Your task to perform on an android device: add a contact in the contacts app Image 0: 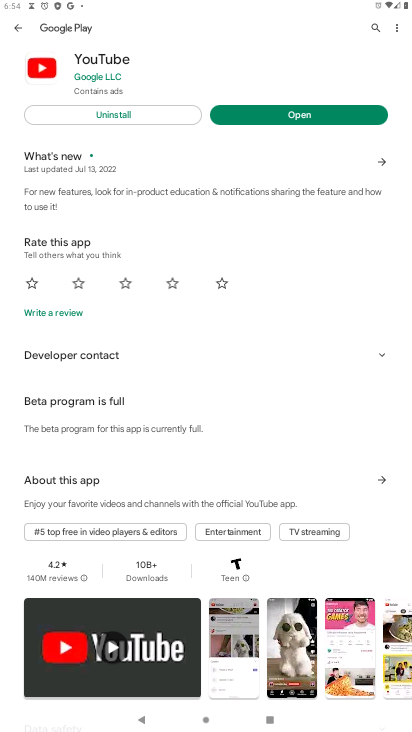
Step 0: press home button
Your task to perform on an android device: add a contact in the contacts app Image 1: 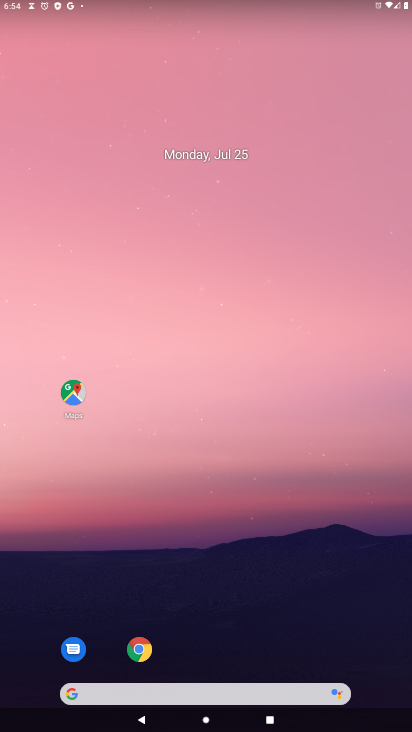
Step 1: drag from (237, 671) to (212, 173)
Your task to perform on an android device: add a contact in the contacts app Image 2: 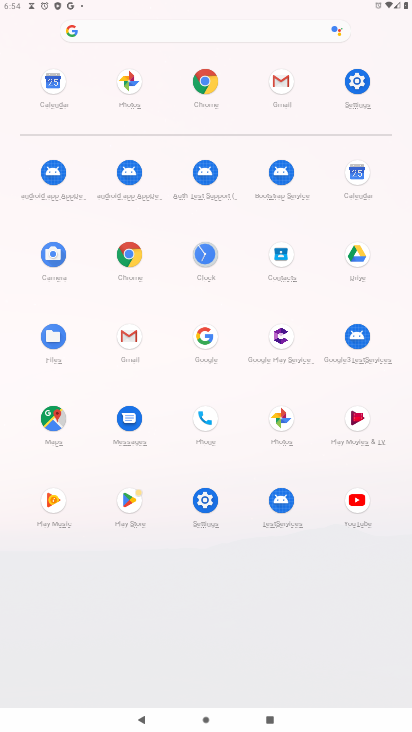
Step 2: click (282, 252)
Your task to perform on an android device: add a contact in the contacts app Image 3: 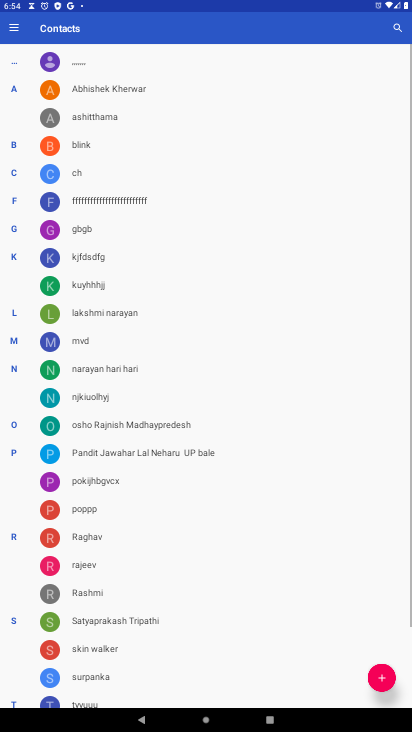
Step 3: click (376, 671)
Your task to perform on an android device: add a contact in the contacts app Image 4: 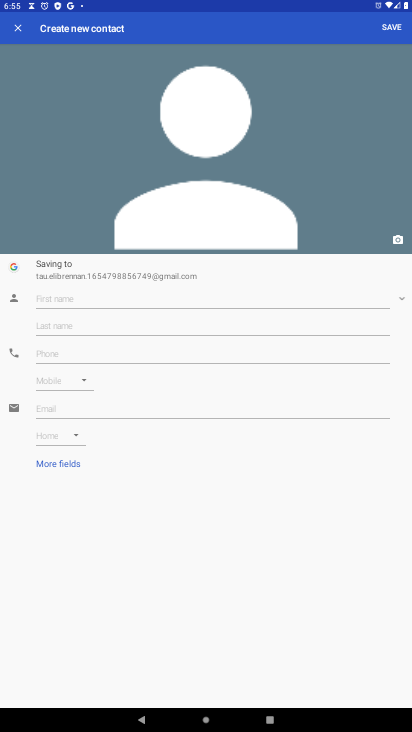
Step 4: click (190, 299)
Your task to perform on an android device: add a contact in the contacts app Image 5: 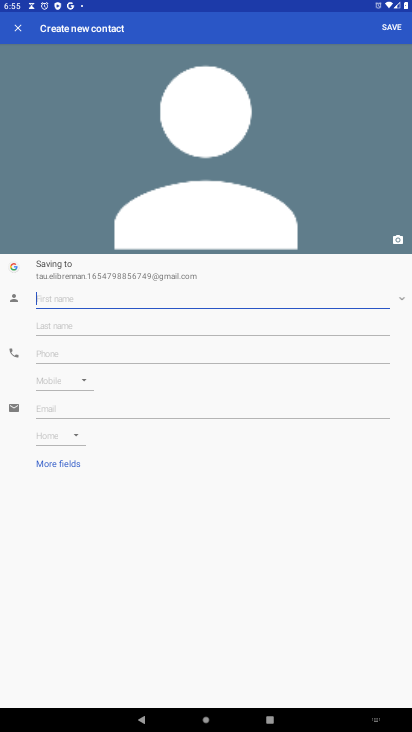
Step 5: type "himani"
Your task to perform on an android device: add a contact in the contacts app Image 6: 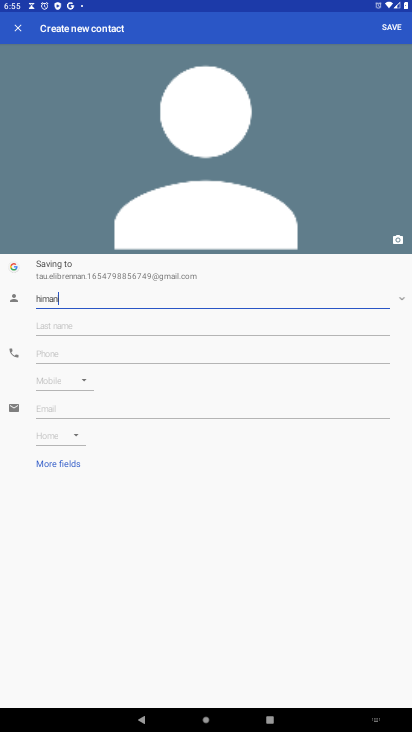
Step 6: click (92, 352)
Your task to perform on an android device: add a contact in the contacts app Image 7: 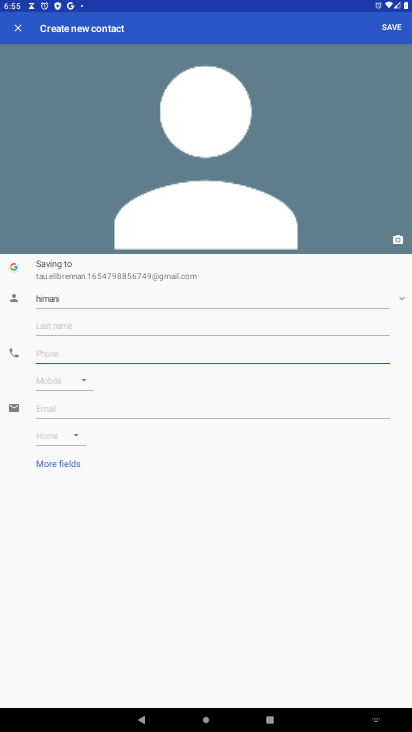
Step 7: type "9087890987"
Your task to perform on an android device: add a contact in the contacts app Image 8: 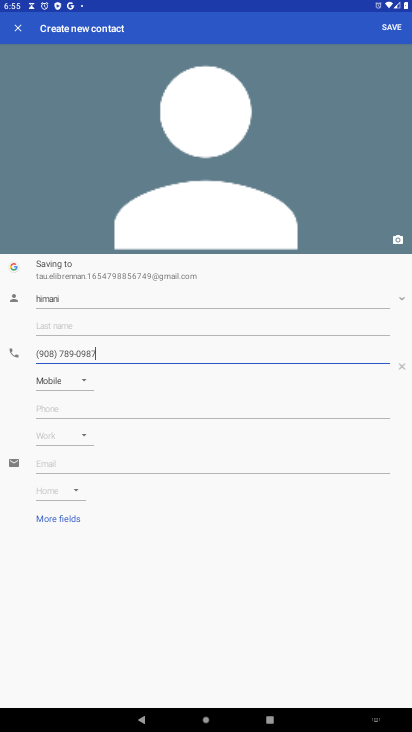
Step 8: click (400, 27)
Your task to perform on an android device: add a contact in the contacts app Image 9: 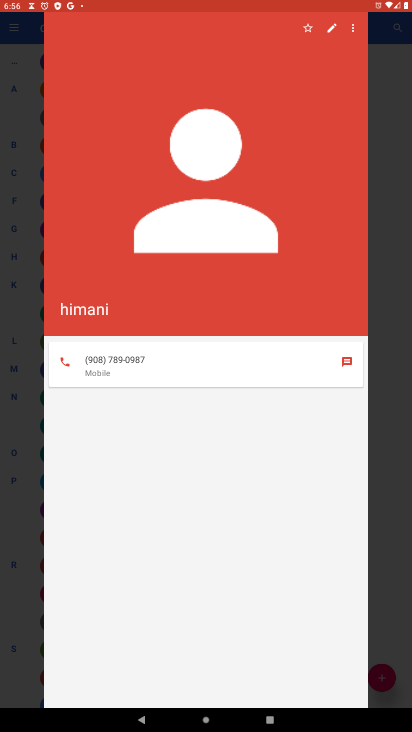
Step 9: task complete